Your task to perform on an android device: manage bookmarks in the chrome app Image 0: 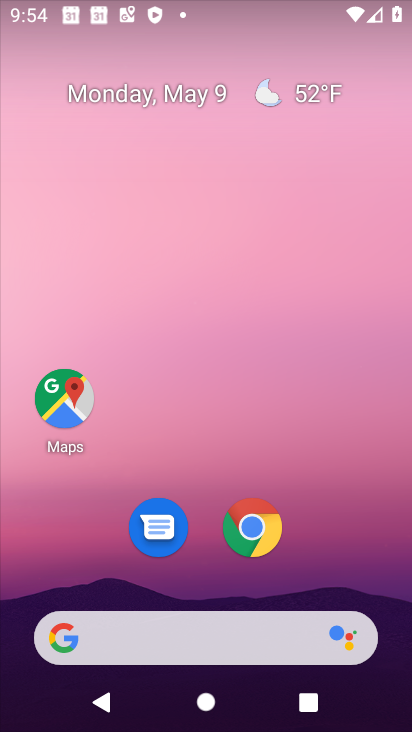
Step 0: click (257, 531)
Your task to perform on an android device: manage bookmarks in the chrome app Image 1: 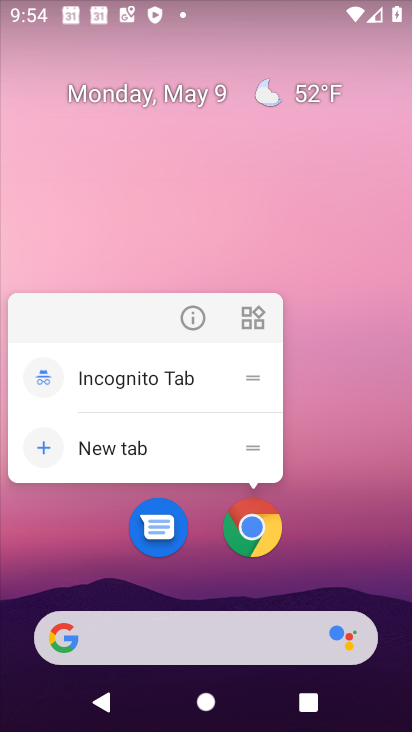
Step 1: click (250, 523)
Your task to perform on an android device: manage bookmarks in the chrome app Image 2: 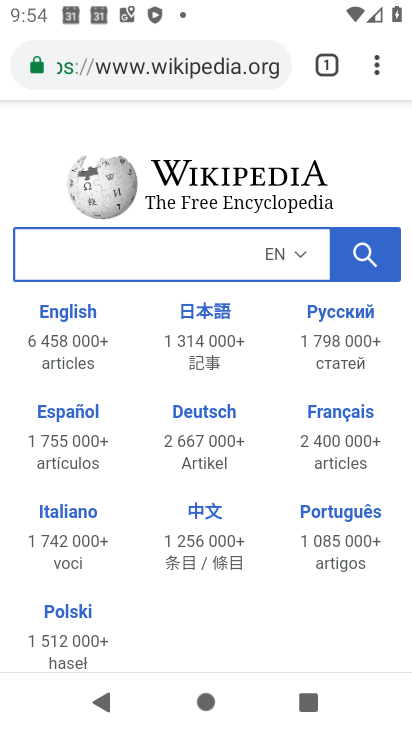
Step 2: click (364, 68)
Your task to perform on an android device: manage bookmarks in the chrome app Image 3: 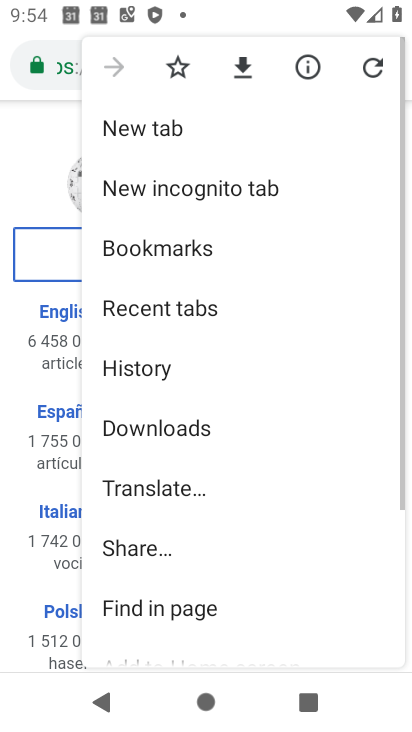
Step 3: drag from (212, 525) to (291, 80)
Your task to perform on an android device: manage bookmarks in the chrome app Image 4: 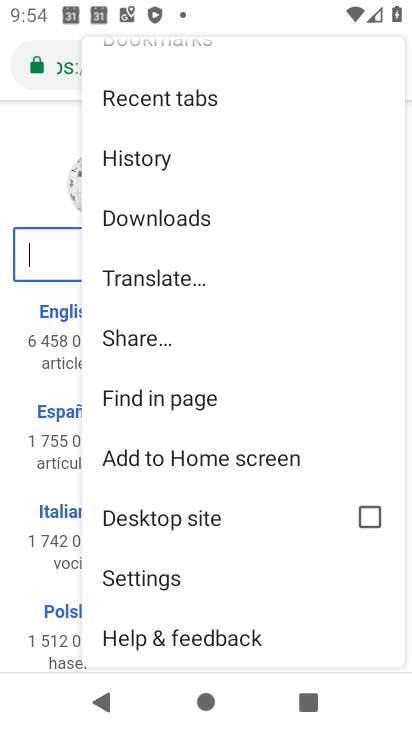
Step 4: drag from (192, 185) to (196, 434)
Your task to perform on an android device: manage bookmarks in the chrome app Image 5: 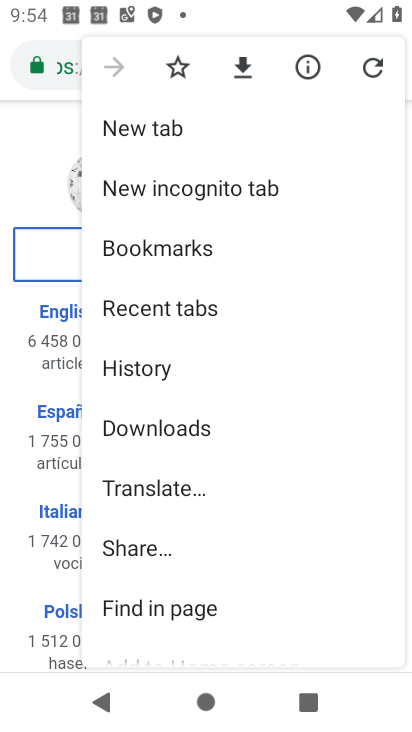
Step 5: click (185, 239)
Your task to perform on an android device: manage bookmarks in the chrome app Image 6: 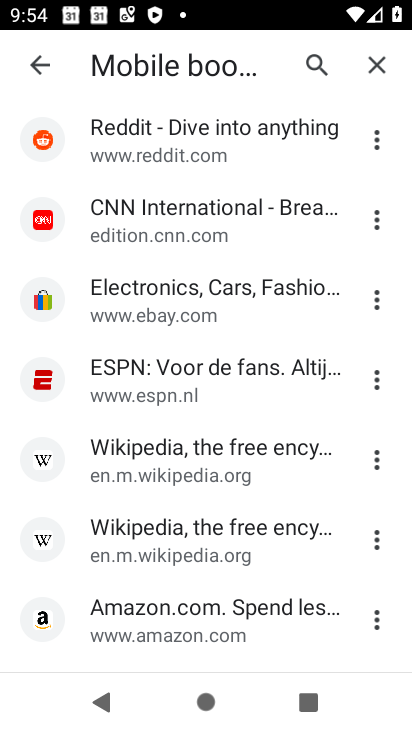
Step 6: click (374, 222)
Your task to perform on an android device: manage bookmarks in the chrome app Image 7: 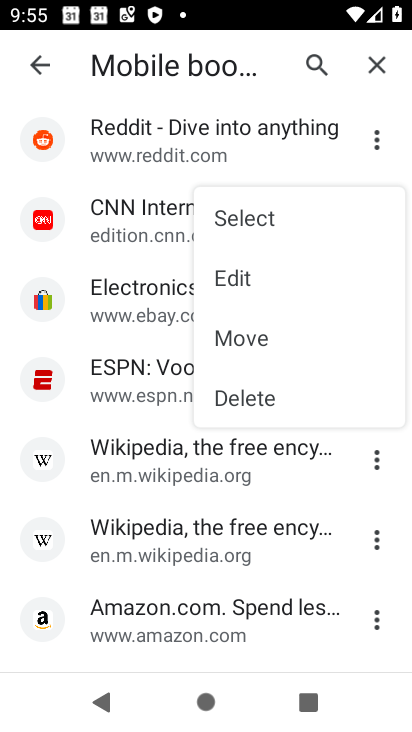
Step 7: click (240, 390)
Your task to perform on an android device: manage bookmarks in the chrome app Image 8: 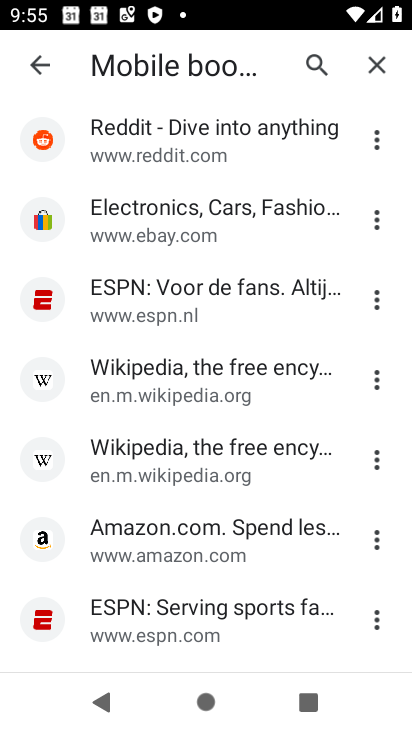
Step 8: task complete